Your task to perform on an android device: Open Android settings Image 0: 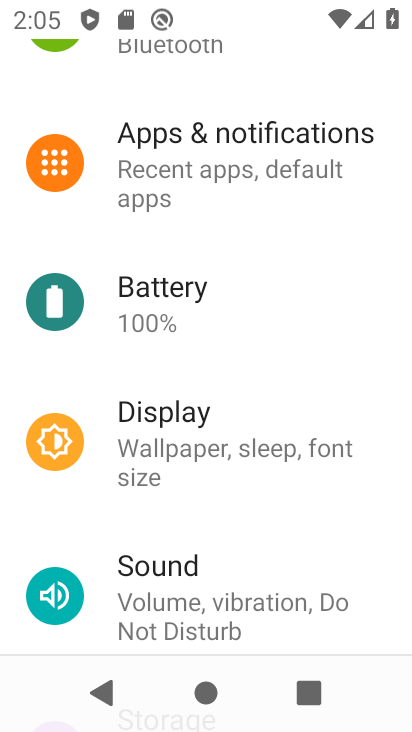
Step 0: drag from (279, 572) to (268, 175)
Your task to perform on an android device: Open Android settings Image 1: 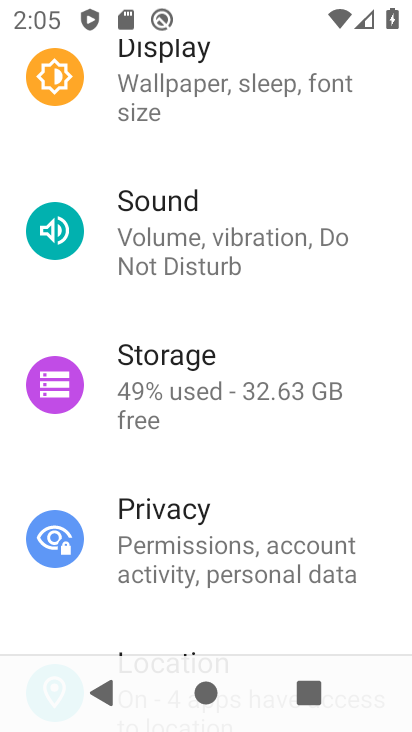
Step 1: task complete